Your task to perform on an android device: check storage Image 0: 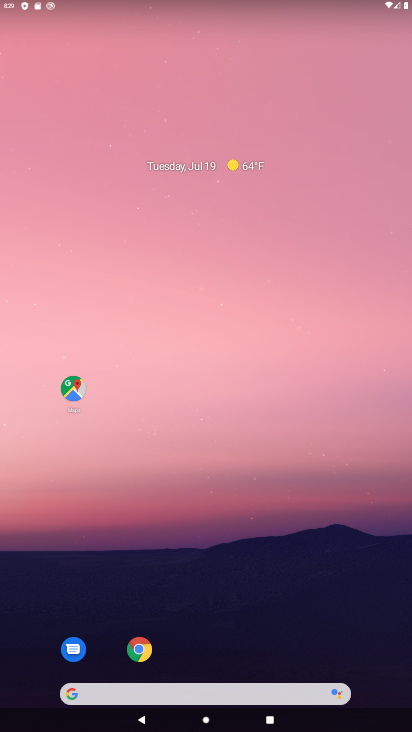
Step 0: drag from (188, 657) to (183, 215)
Your task to perform on an android device: check storage Image 1: 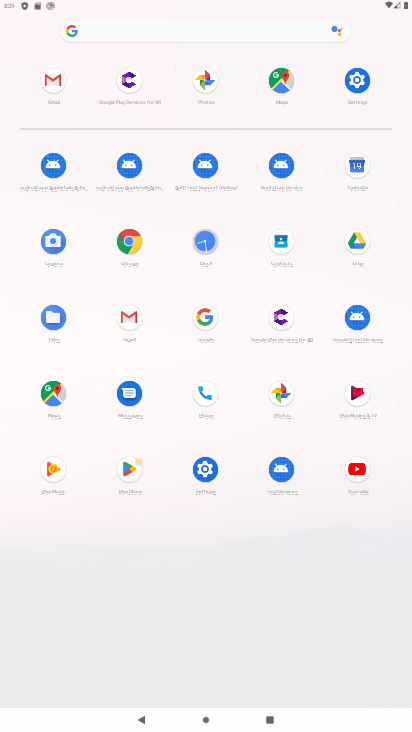
Step 1: click (343, 92)
Your task to perform on an android device: check storage Image 2: 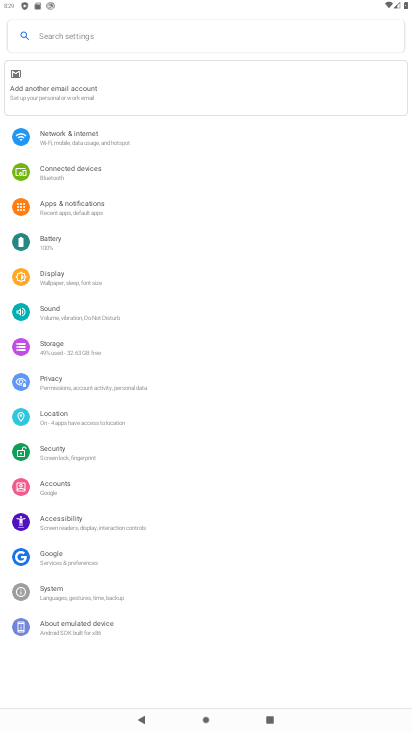
Step 2: click (55, 348)
Your task to perform on an android device: check storage Image 3: 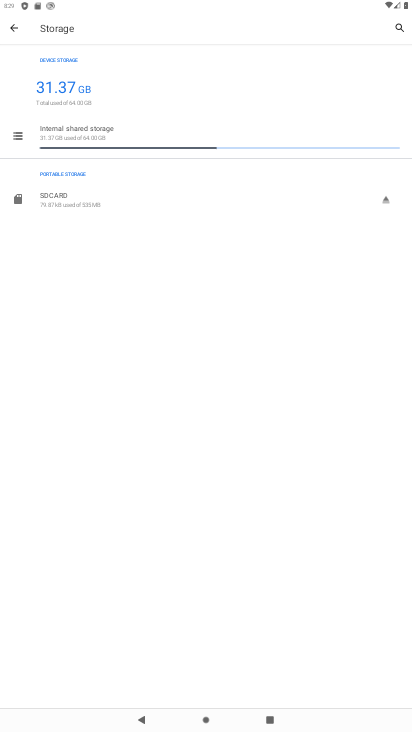
Step 3: click (111, 152)
Your task to perform on an android device: check storage Image 4: 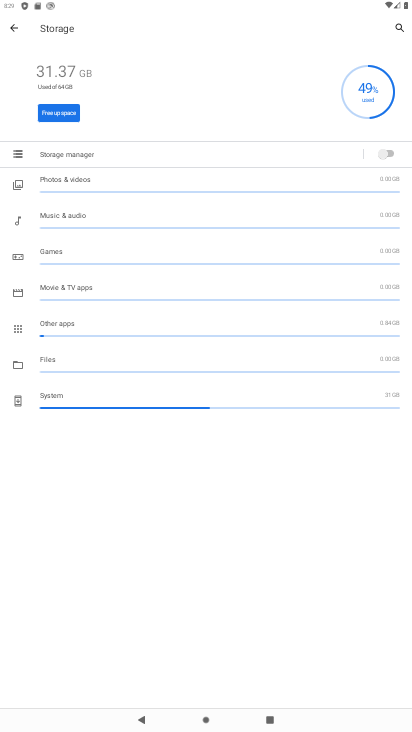
Step 4: task complete